Your task to perform on an android device: refresh tabs in the chrome app Image 0: 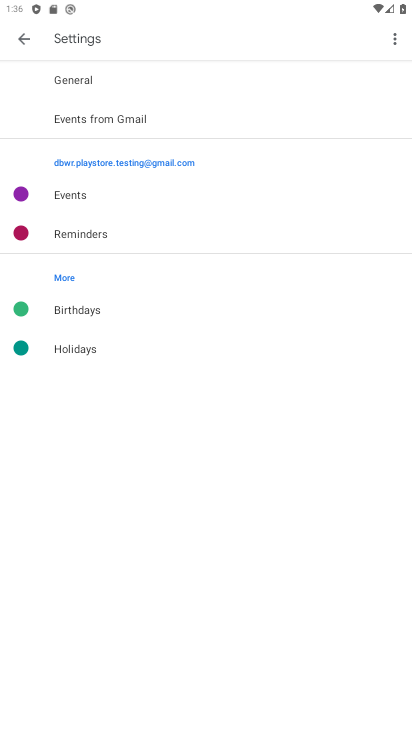
Step 0: press back button
Your task to perform on an android device: refresh tabs in the chrome app Image 1: 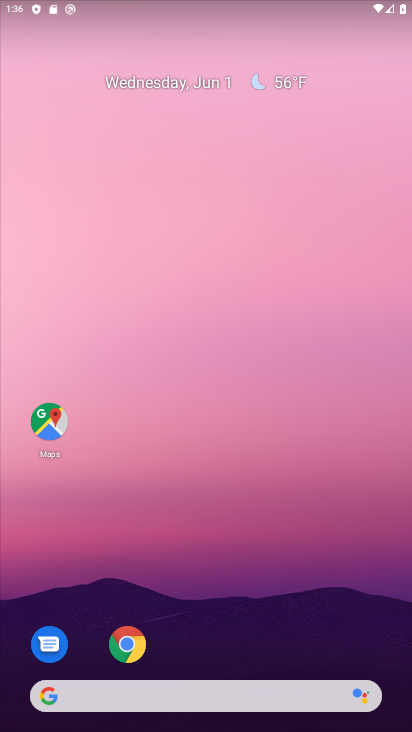
Step 1: drag from (266, 582) to (226, 81)
Your task to perform on an android device: refresh tabs in the chrome app Image 2: 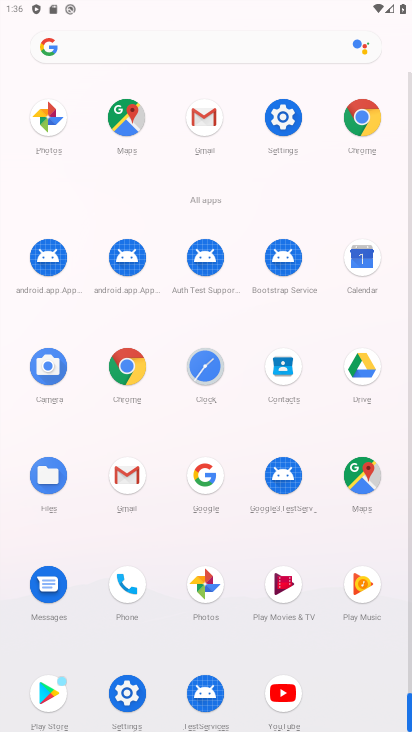
Step 2: drag from (13, 493) to (2, 191)
Your task to perform on an android device: refresh tabs in the chrome app Image 3: 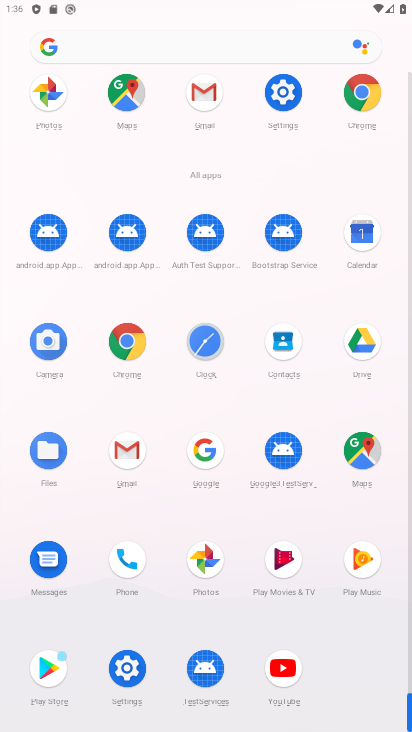
Step 3: click (127, 335)
Your task to perform on an android device: refresh tabs in the chrome app Image 4: 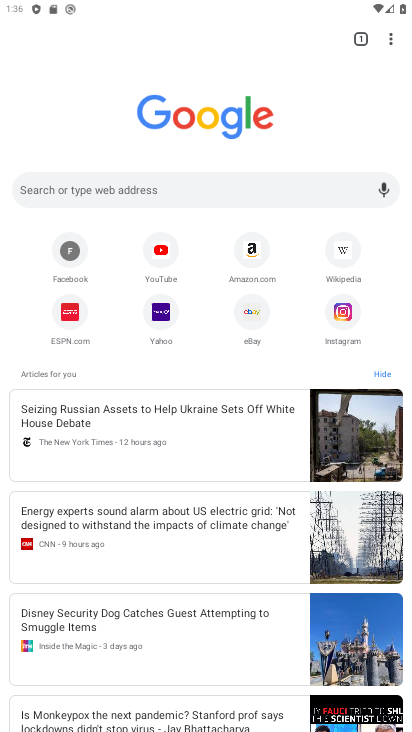
Step 4: click (392, 35)
Your task to perform on an android device: refresh tabs in the chrome app Image 5: 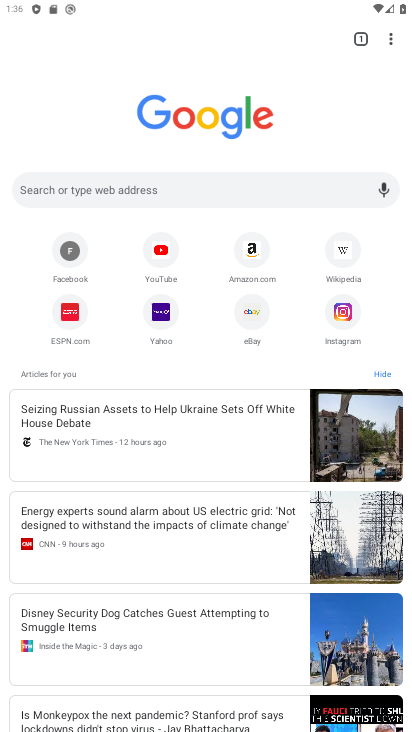
Step 5: task complete